Your task to perform on an android device: Open Android settings Image 0: 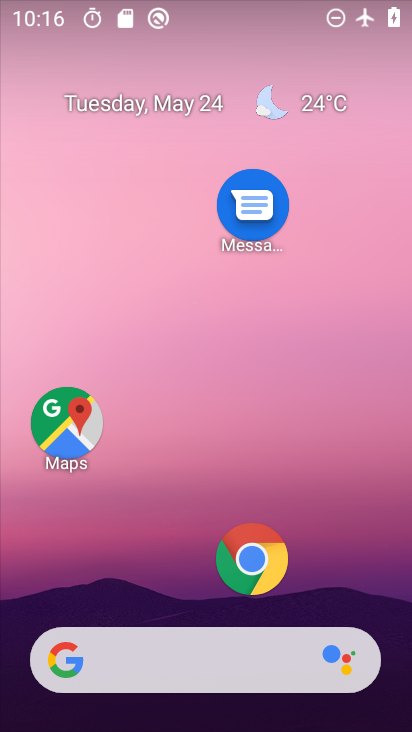
Step 0: drag from (193, 587) to (166, 190)
Your task to perform on an android device: Open Android settings Image 1: 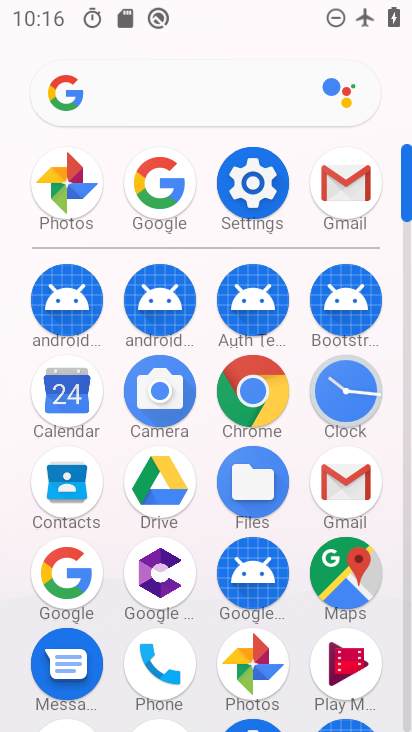
Step 1: click (242, 203)
Your task to perform on an android device: Open Android settings Image 2: 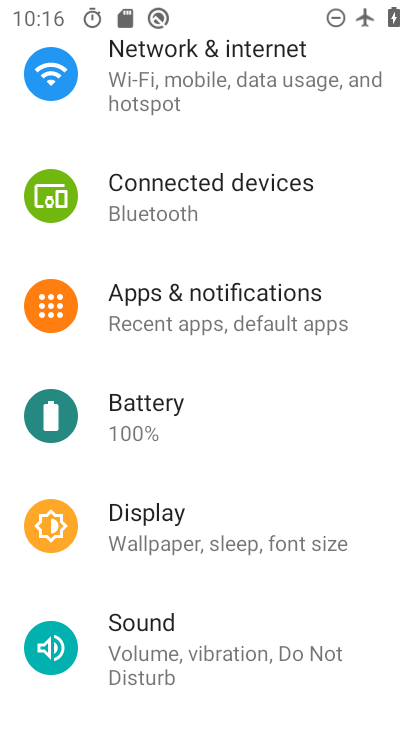
Step 2: task complete